Your task to perform on an android device: star an email in the gmail app Image 0: 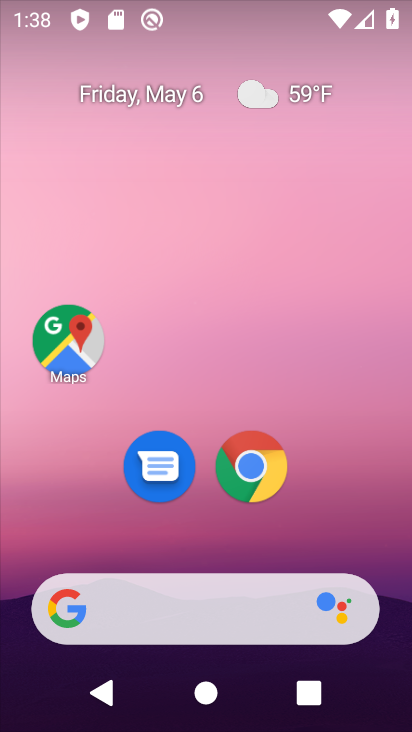
Step 0: drag from (210, 538) to (270, 53)
Your task to perform on an android device: star an email in the gmail app Image 1: 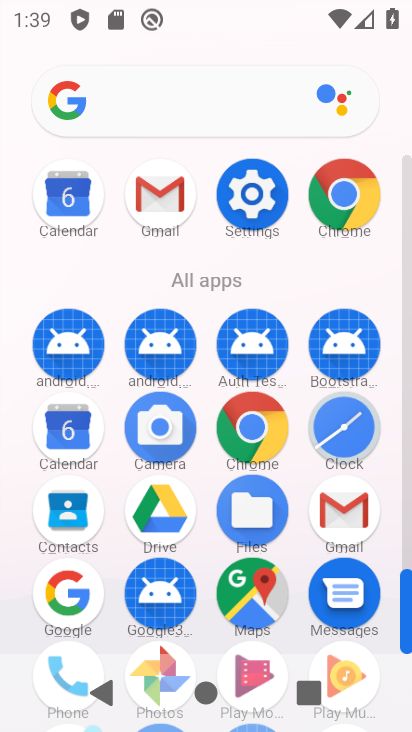
Step 1: click (338, 505)
Your task to perform on an android device: star an email in the gmail app Image 2: 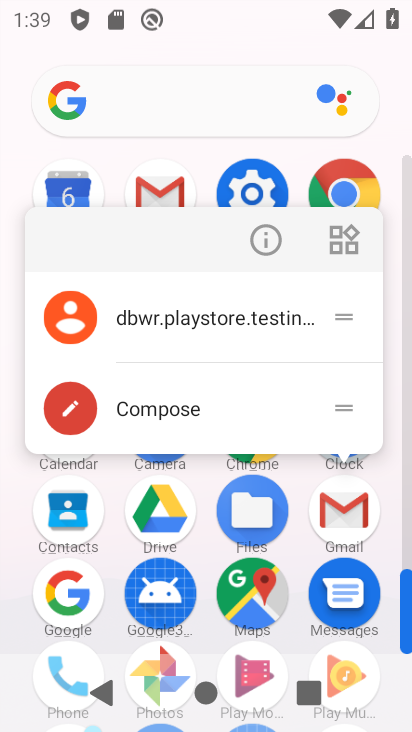
Step 2: click (349, 502)
Your task to perform on an android device: star an email in the gmail app Image 3: 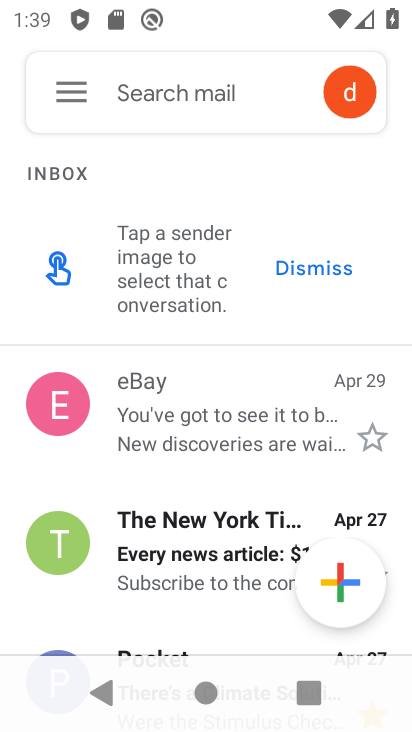
Step 3: click (367, 435)
Your task to perform on an android device: star an email in the gmail app Image 4: 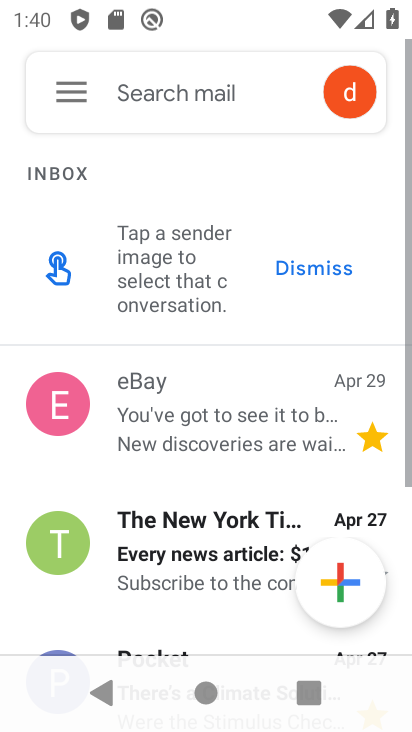
Step 4: task complete